Your task to perform on an android device: Add logitech g pro to the cart on ebay Image 0: 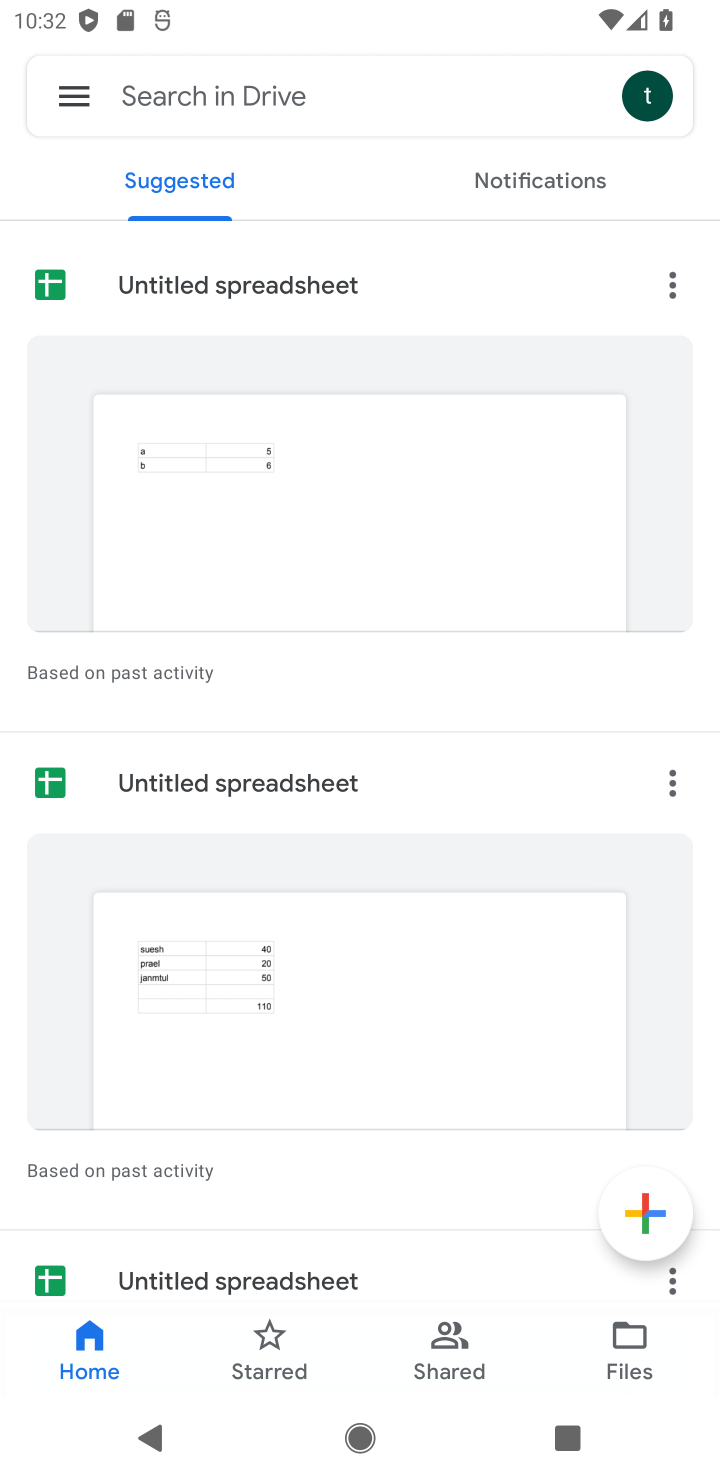
Step 0: press home button
Your task to perform on an android device: Add logitech g pro to the cart on ebay Image 1: 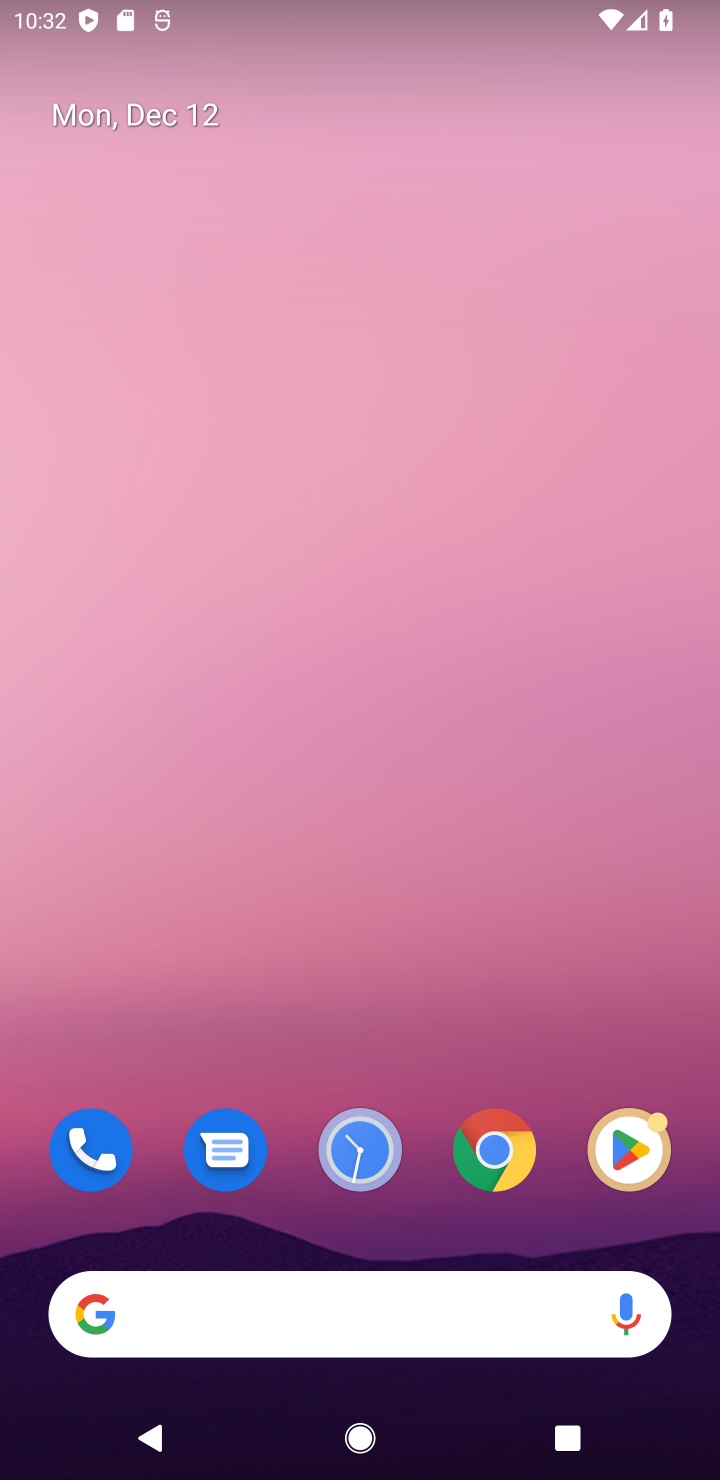
Step 1: click (496, 1165)
Your task to perform on an android device: Add logitech g pro to the cart on ebay Image 2: 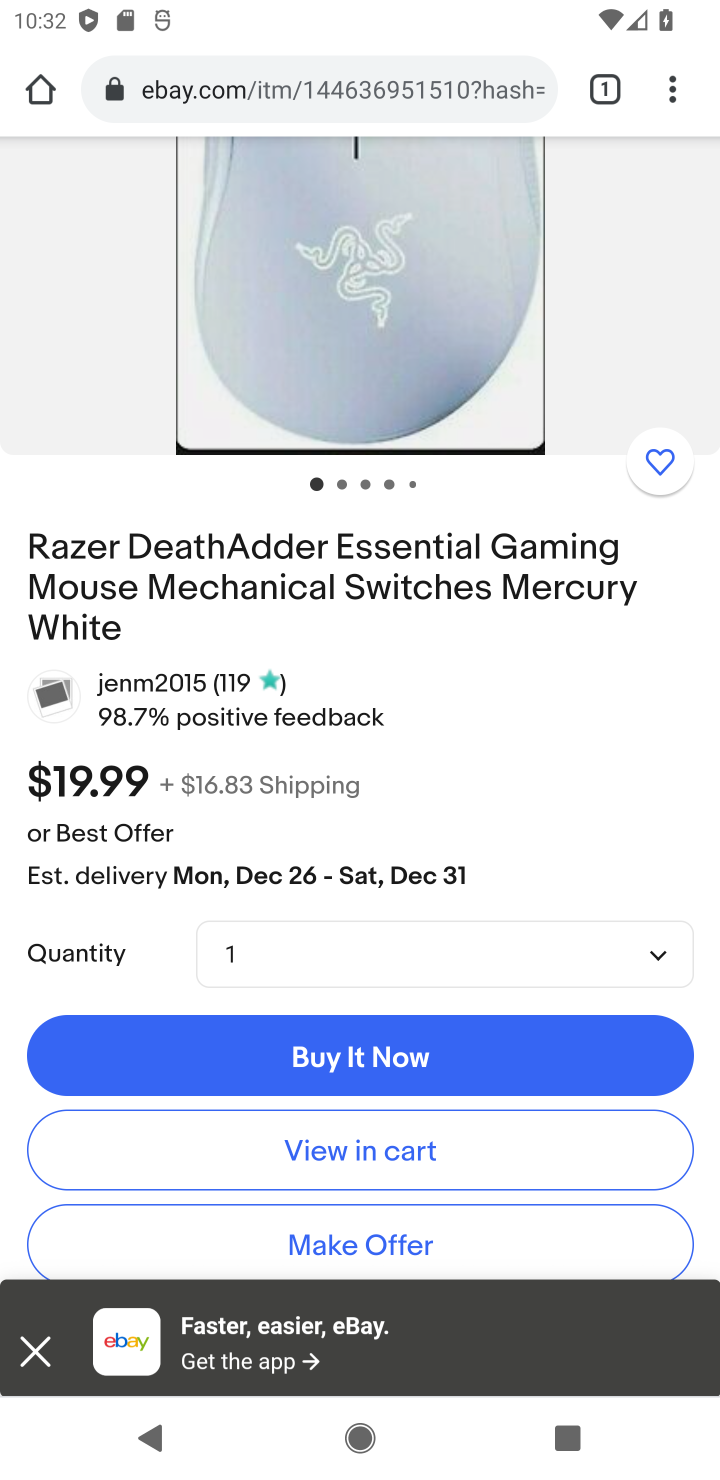
Step 2: drag from (567, 298) to (464, 1155)
Your task to perform on an android device: Add logitech g pro to the cart on ebay Image 3: 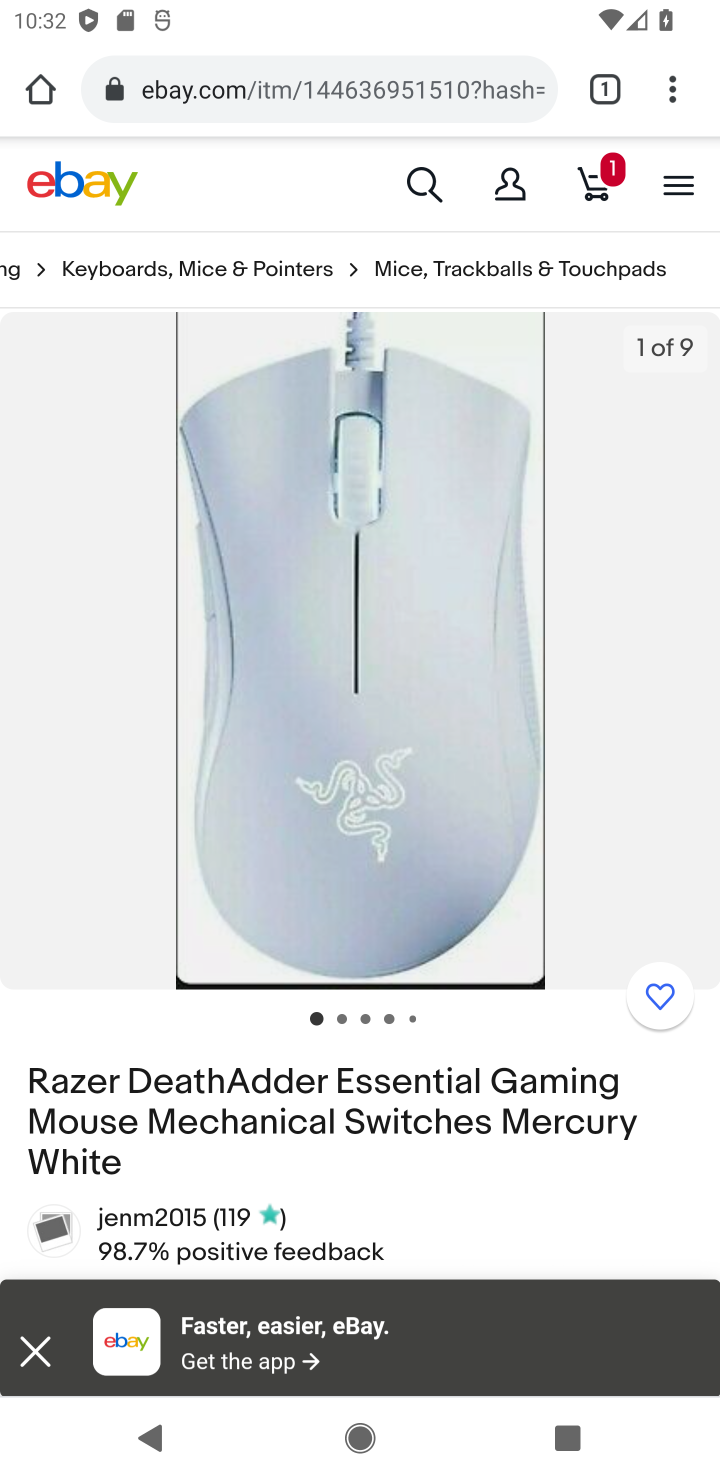
Step 3: click (421, 185)
Your task to perform on an android device: Add logitech g pro to the cart on ebay Image 4: 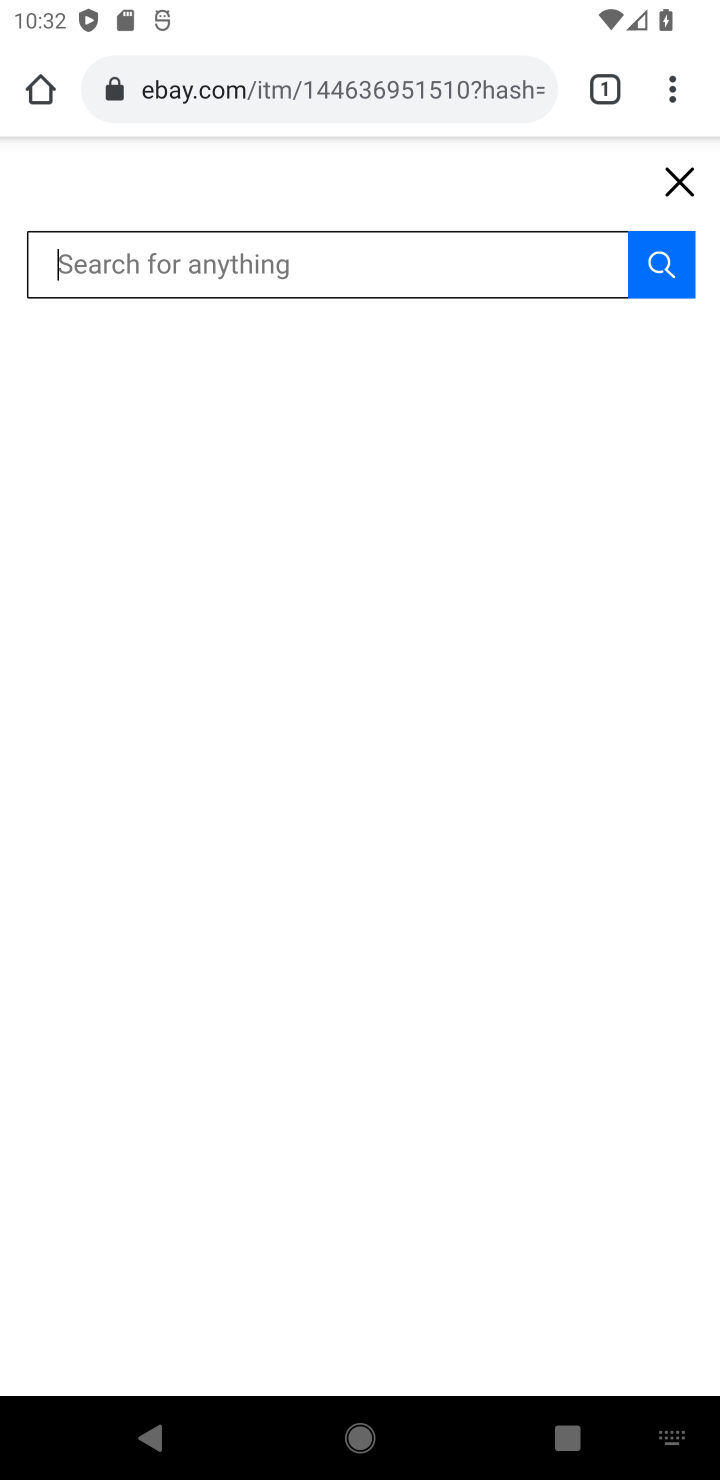
Step 4: type "logitech g pro"
Your task to perform on an android device: Add logitech g pro to the cart on ebay Image 5: 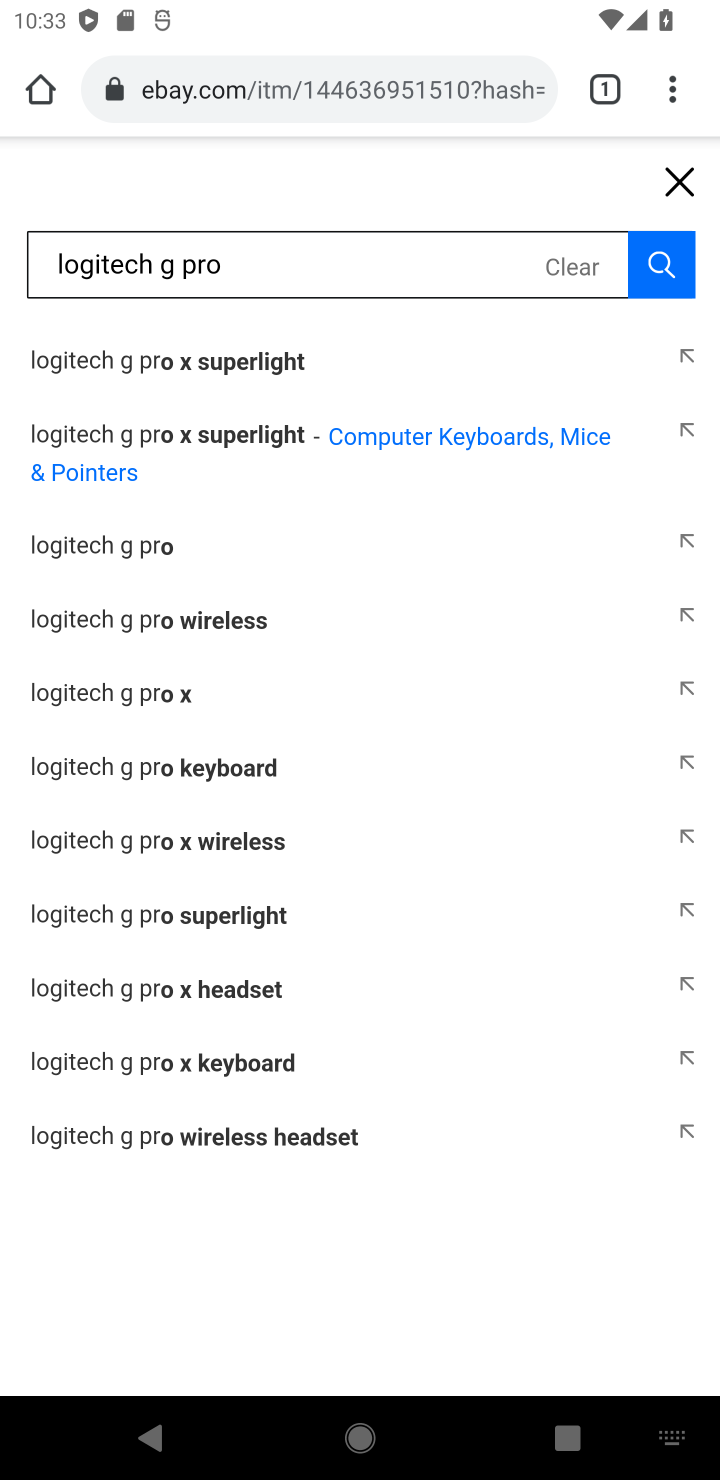
Step 5: click (135, 564)
Your task to perform on an android device: Add logitech g pro to the cart on ebay Image 6: 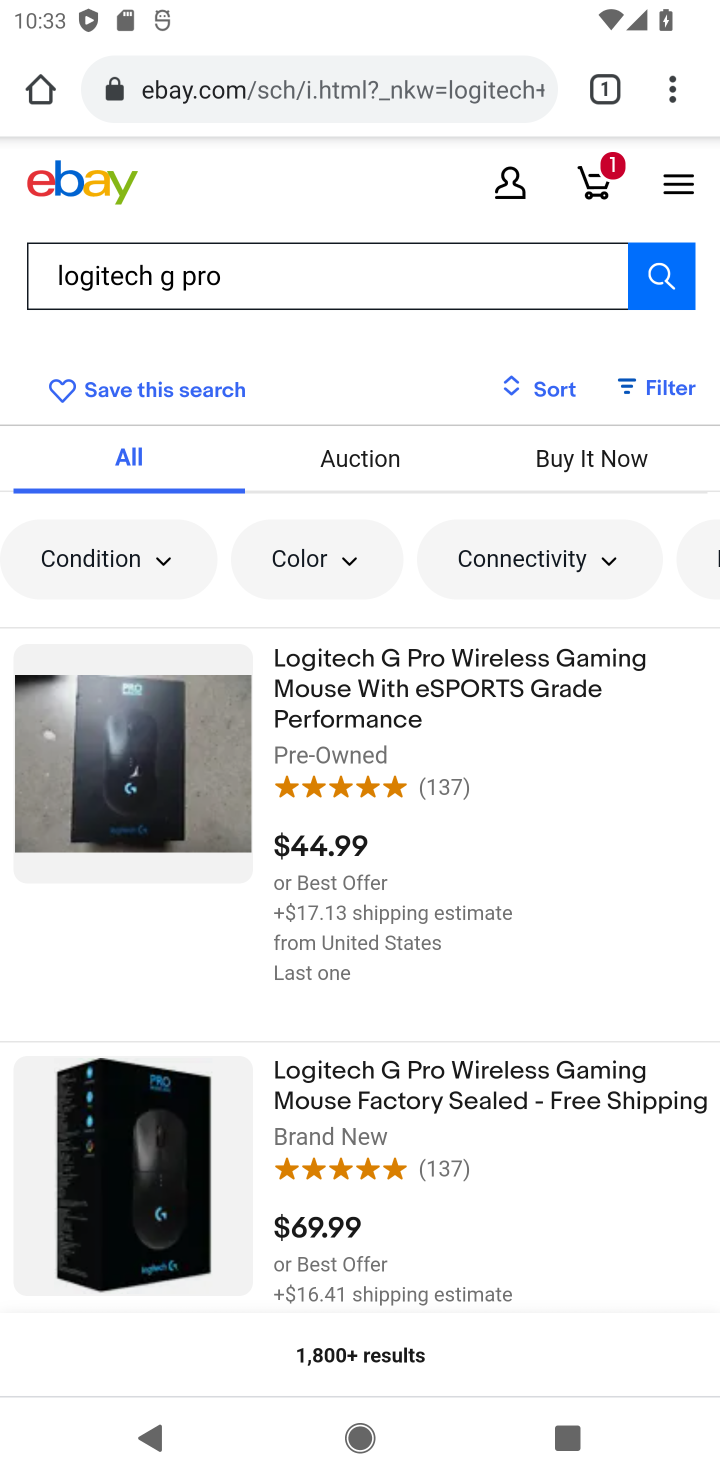
Step 6: click (319, 721)
Your task to perform on an android device: Add logitech g pro to the cart on ebay Image 7: 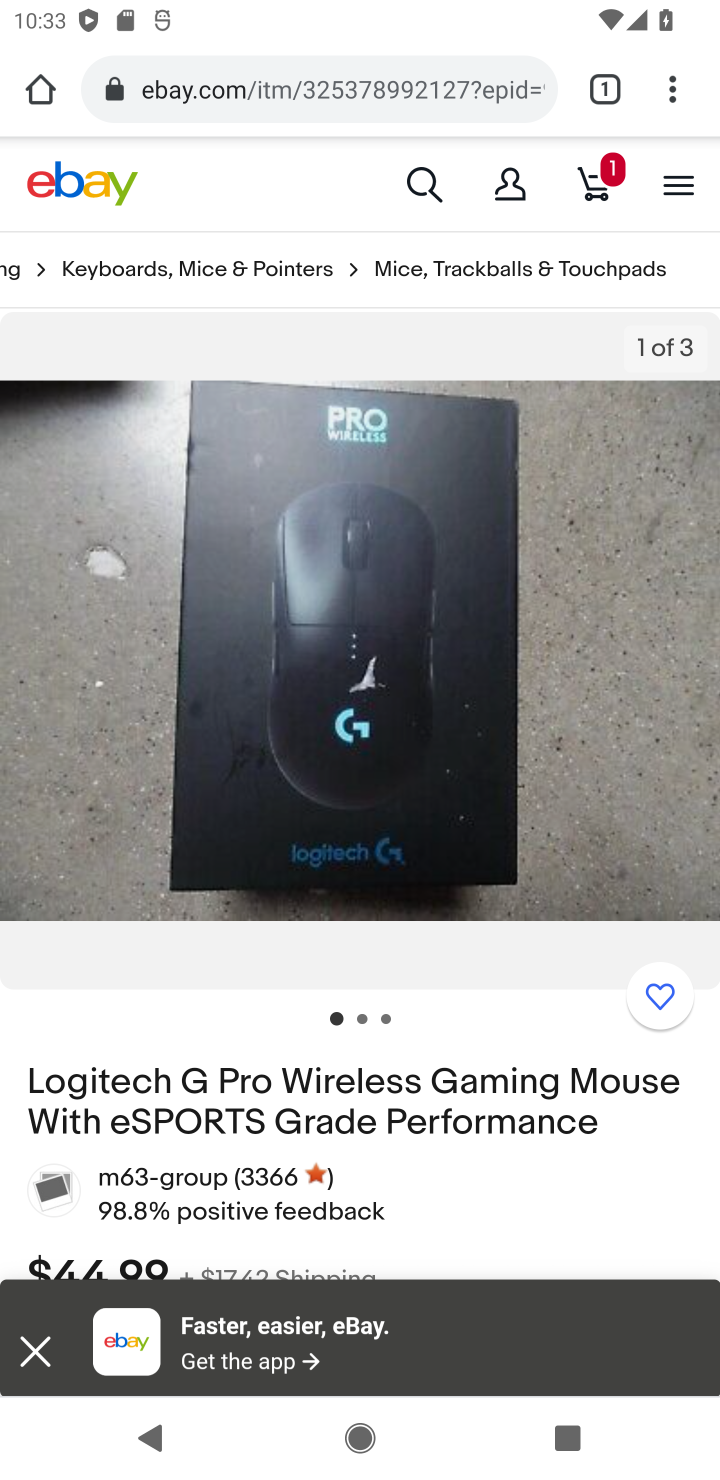
Step 7: drag from (458, 1150) to (396, 521)
Your task to perform on an android device: Add logitech g pro to the cart on ebay Image 8: 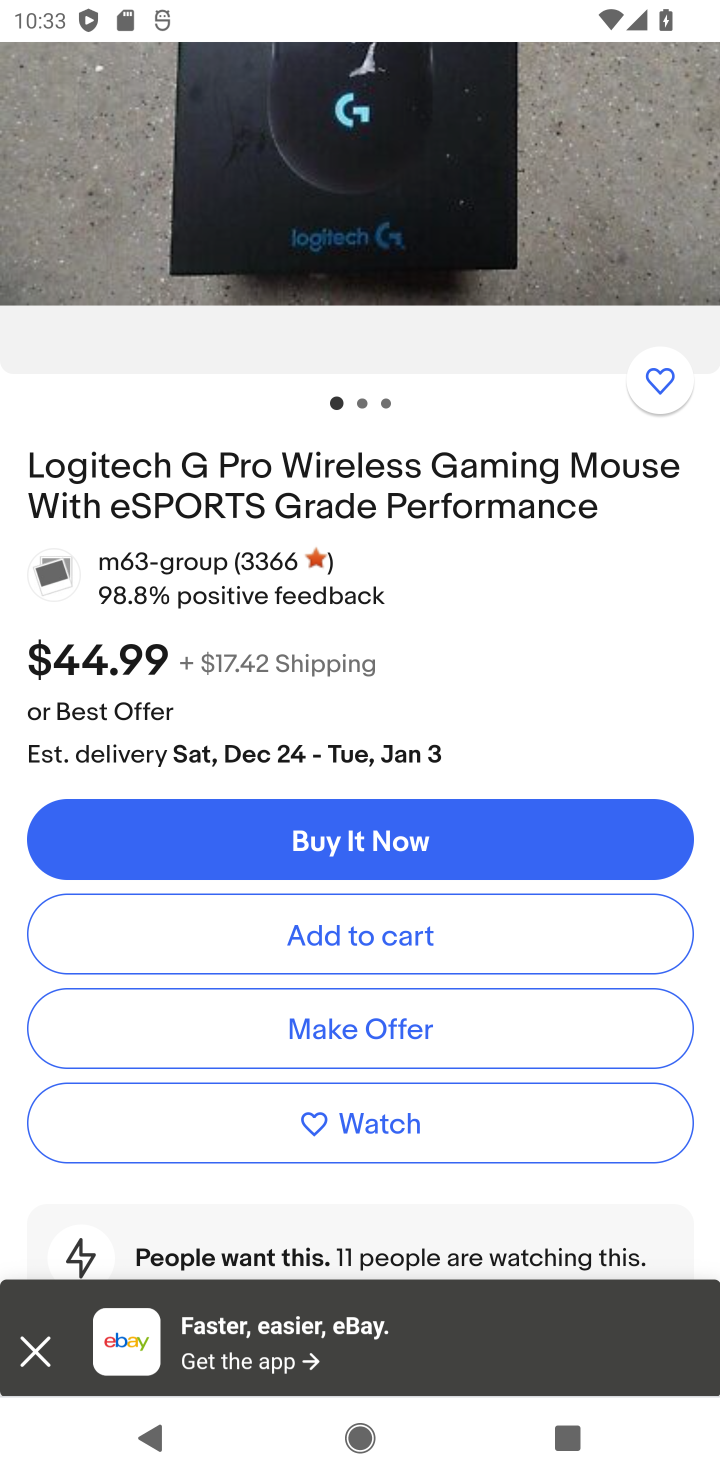
Step 8: click (329, 937)
Your task to perform on an android device: Add logitech g pro to the cart on ebay Image 9: 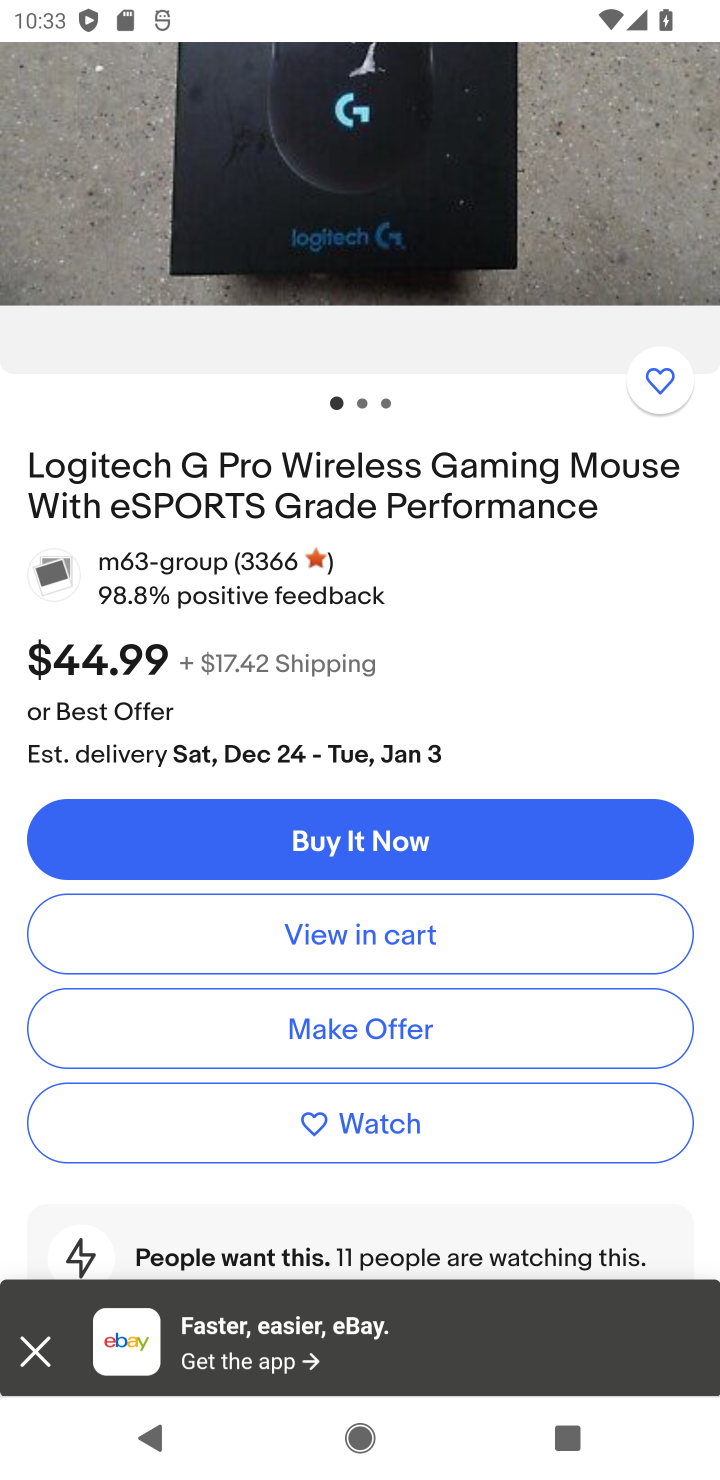
Step 9: task complete